Your task to perform on an android device: Open calendar and show me the fourth week of next month Image 0: 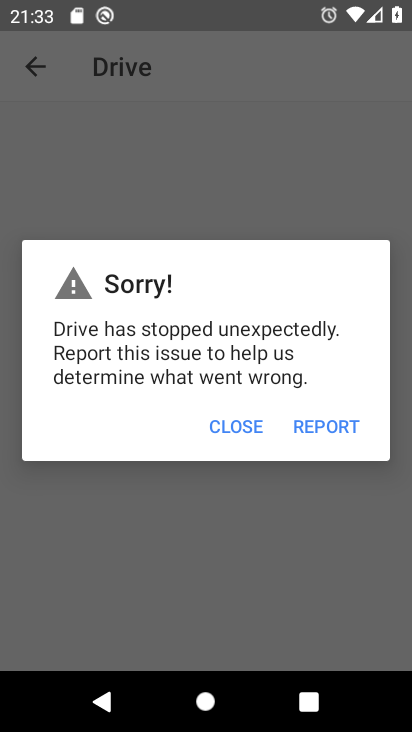
Step 0: press home button
Your task to perform on an android device: Open calendar and show me the fourth week of next month Image 1: 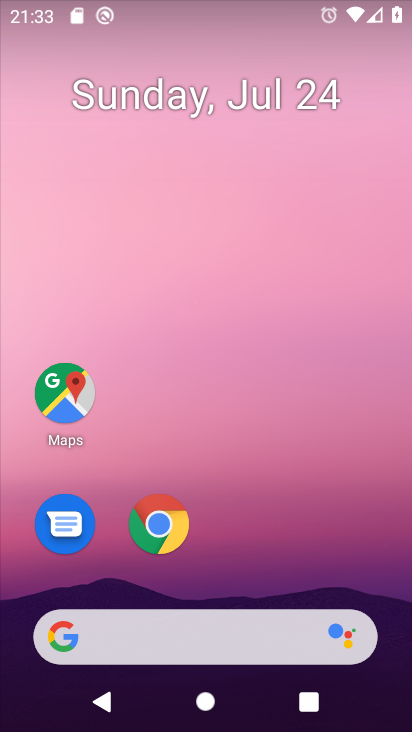
Step 1: drag from (308, 546) to (223, 0)
Your task to perform on an android device: Open calendar and show me the fourth week of next month Image 2: 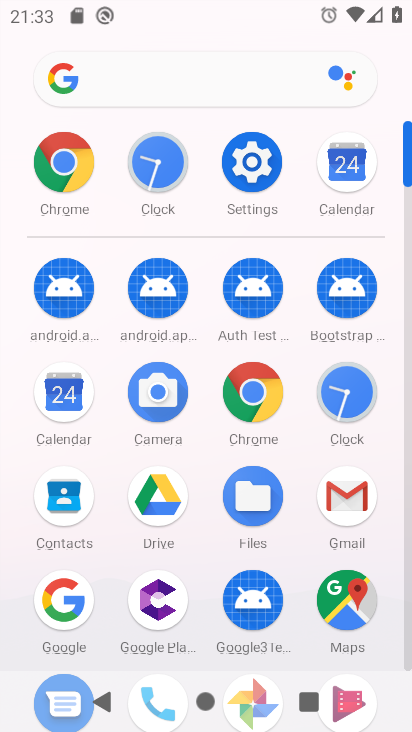
Step 2: click (338, 171)
Your task to perform on an android device: Open calendar and show me the fourth week of next month Image 3: 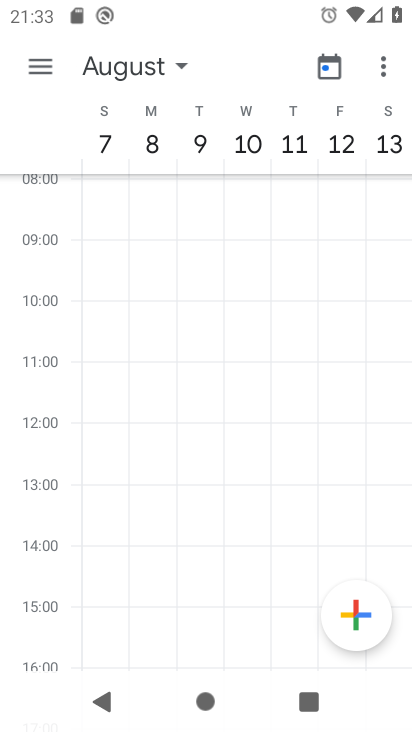
Step 3: task complete